Your task to perform on an android device: remove spam from my inbox in the gmail app Image 0: 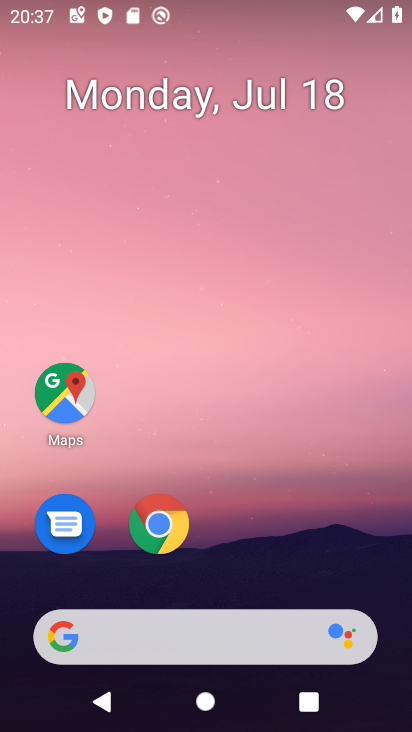
Step 0: drag from (268, 519) to (249, 47)
Your task to perform on an android device: remove spam from my inbox in the gmail app Image 1: 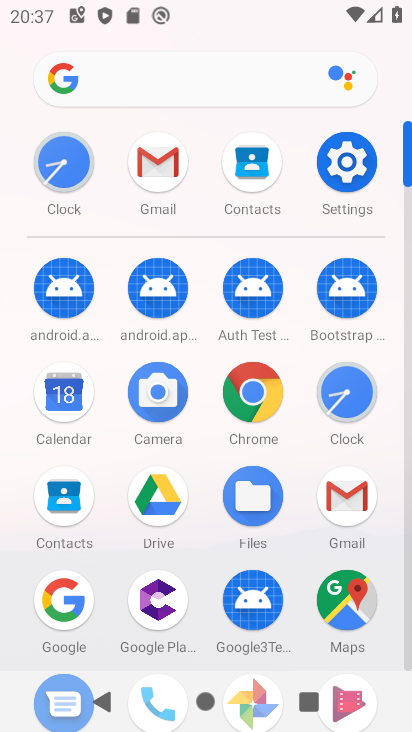
Step 1: click (165, 155)
Your task to perform on an android device: remove spam from my inbox in the gmail app Image 2: 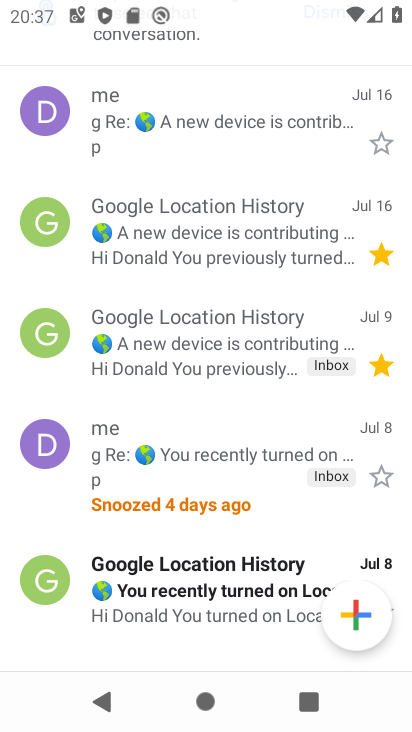
Step 2: drag from (209, 176) to (223, 583)
Your task to perform on an android device: remove spam from my inbox in the gmail app Image 3: 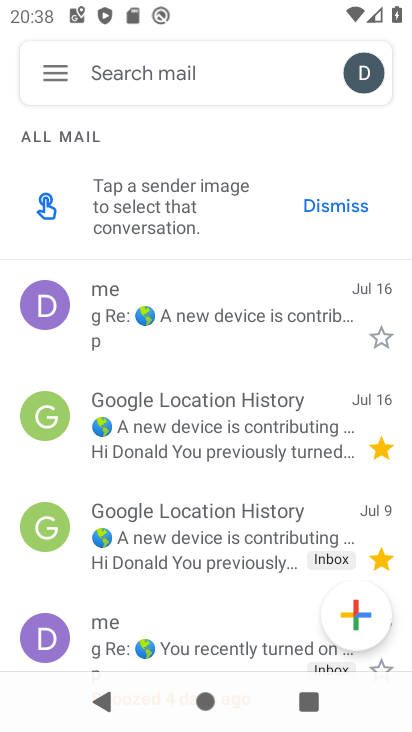
Step 3: click (58, 71)
Your task to perform on an android device: remove spam from my inbox in the gmail app Image 4: 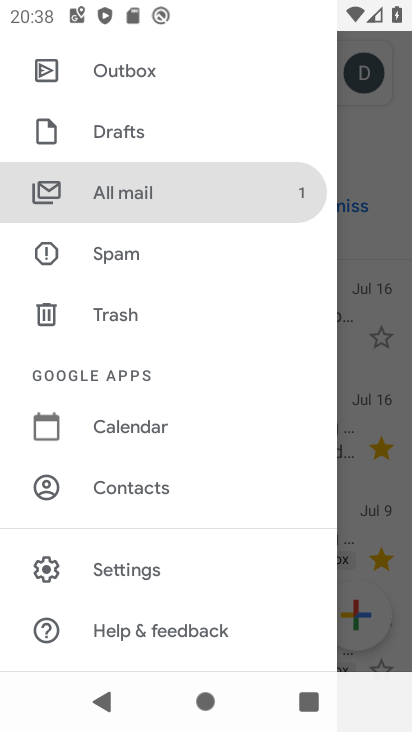
Step 4: click (114, 245)
Your task to perform on an android device: remove spam from my inbox in the gmail app Image 5: 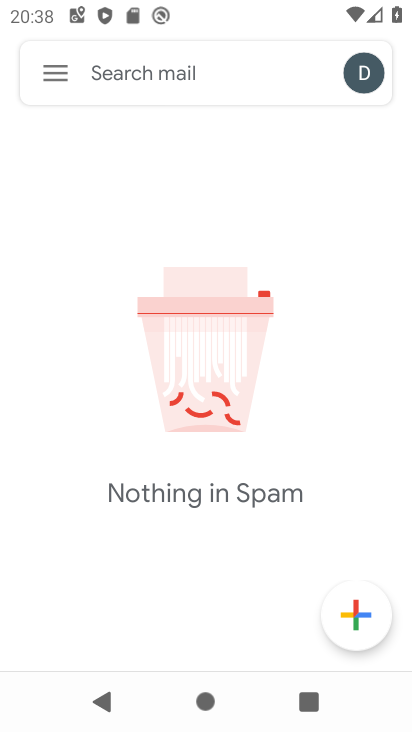
Step 5: task complete